Your task to perform on an android device: Go to display settings Image 0: 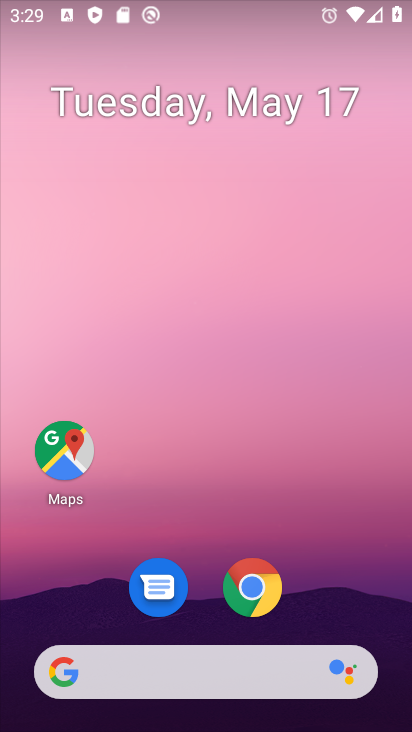
Step 0: drag from (219, 530) to (310, 3)
Your task to perform on an android device: Go to display settings Image 1: 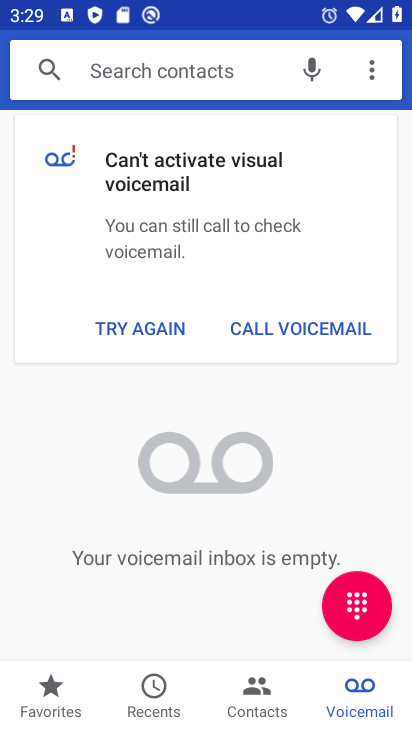
Step 1: drag from (204, 597) to (223, 429)
Your task to perform on an android device: Go to display settings Image 2: 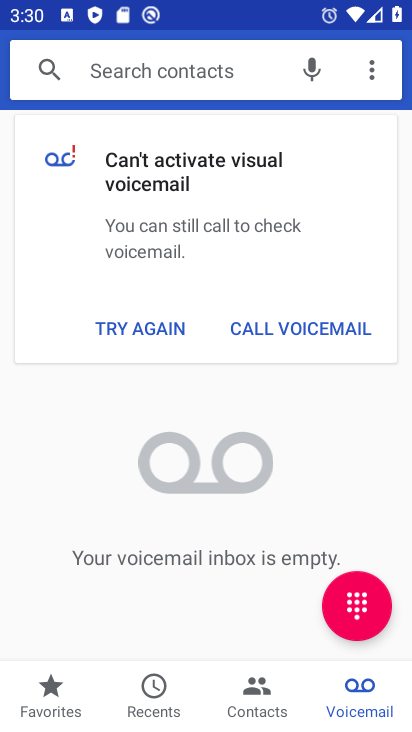
Step 2: press home button
Your task to perform on an android device: Go to display settings Image 3: 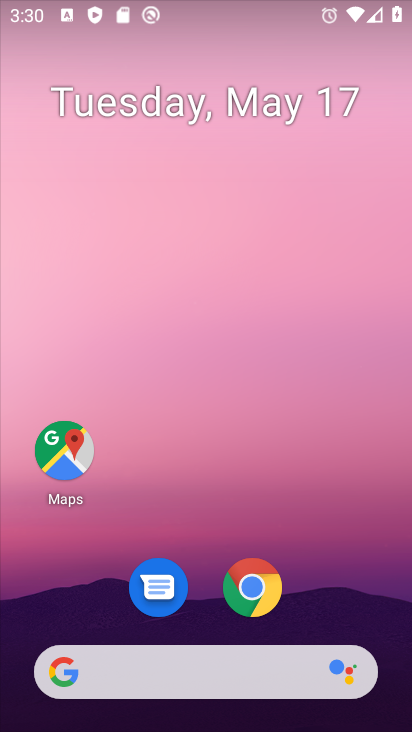
Step 3: drag from (233, 522) to (274, 184)
Your task to perform on an android device: Go to display settings Image 4: 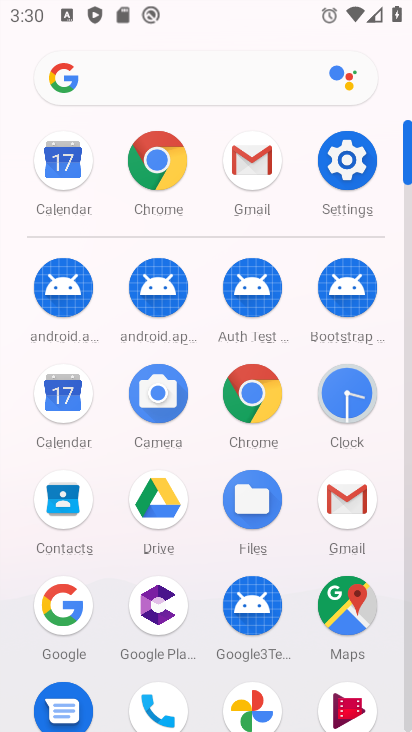
Step 4: click (356, 136)
Your task to perform on an android device: Go to display settings Image 5: 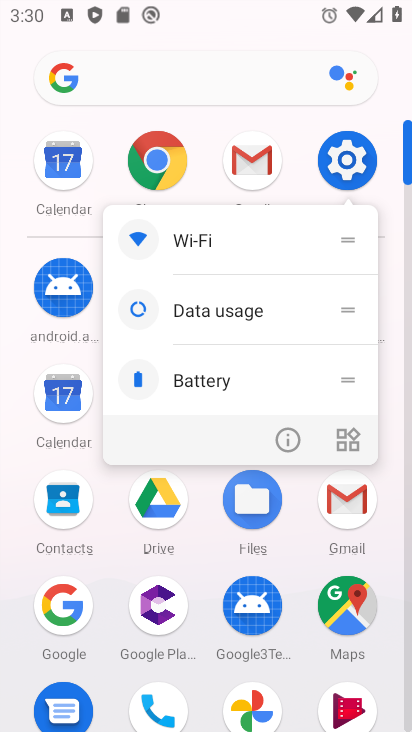
Step 5: click (284, 441)
Your task to perform on an android device: Go to display settings Image 6: 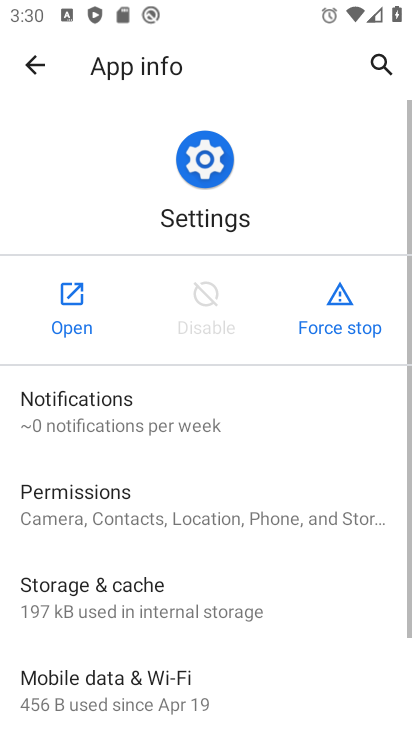
Step 6: click (69, 304)
Your task to perform on an android device: Go to display settings Image 7: 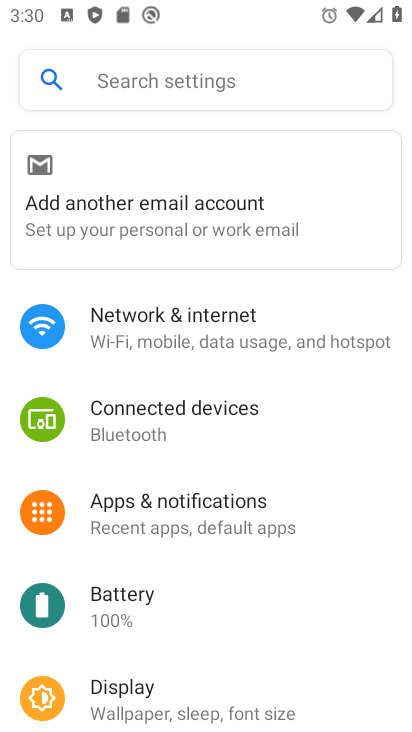
Step 7: drag from (207, 580) to (267, 172)
Your task to perform on an android device: Go to display settings Image 8: 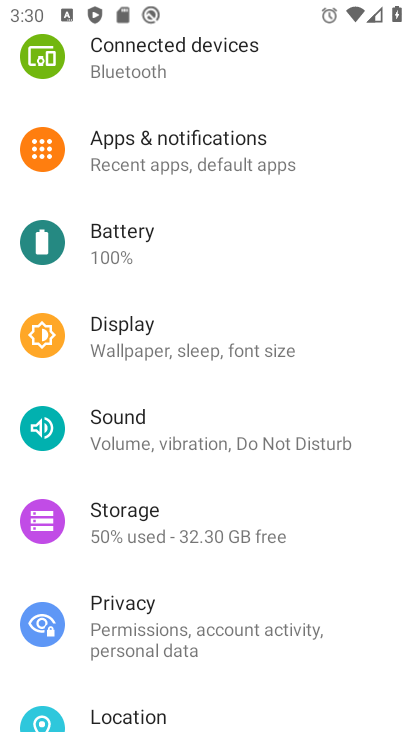
Step 8: click (131, 333)
Your task to perform on an android device: Go to display settings Image 9: 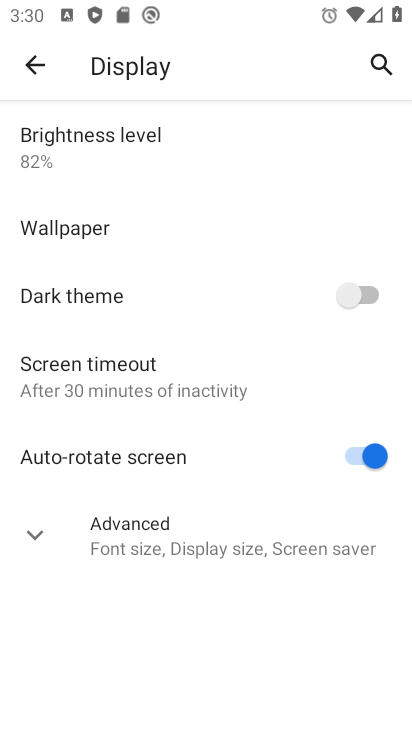
Step 9: task complete